Your task to perform on an android device: change the clock display to digital Image 0: 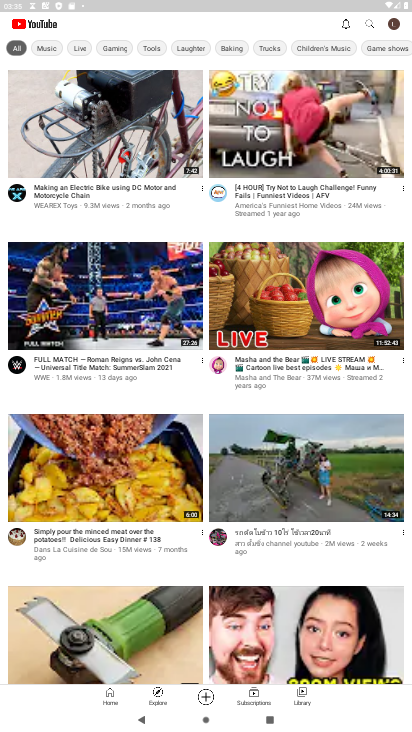
Step 0: press home button
Your task to perform on an android device: change the clock display to digital Image 1: 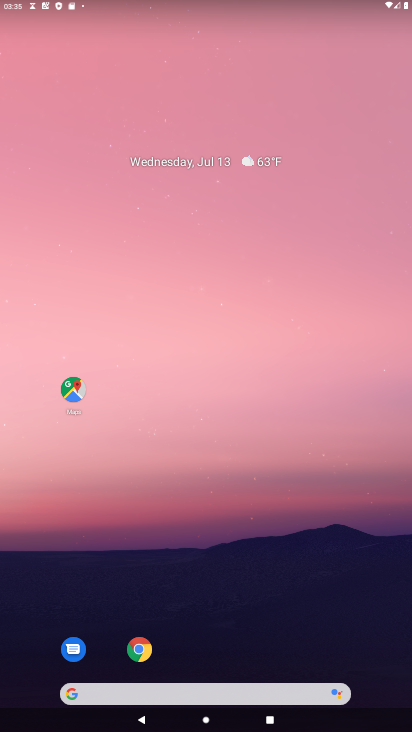
Step 1: drag from (237, 628) to (285, 121)
Your task to perform on an android device: change the clock display to digital Image 2: 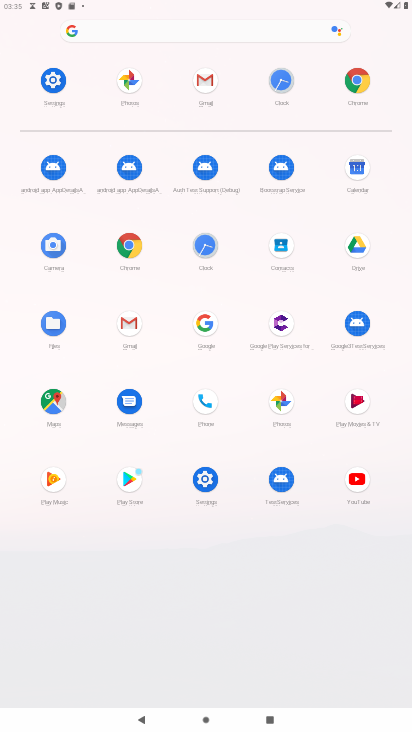
Step 2: click (276, 73)
Your task to perform on an android device: change the clock display to digital Image 3: 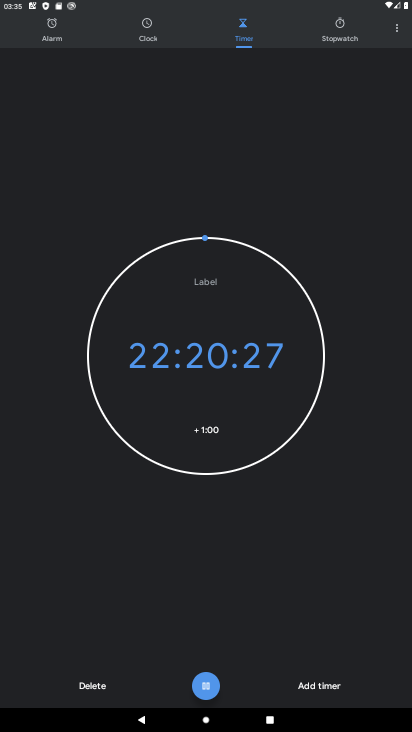
Step 3: click (397, 32)
Your task to perform on an android device: change the clock display to digital Image 4: 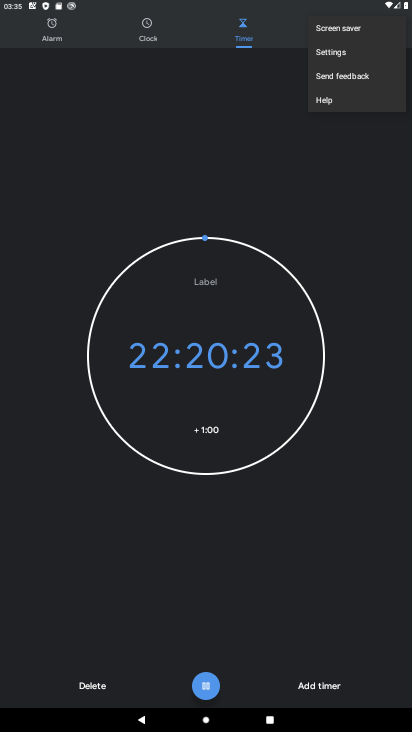
Step 4: click (332, 45)
Your task to perform on an android device: change the clock display to digital Image 5: 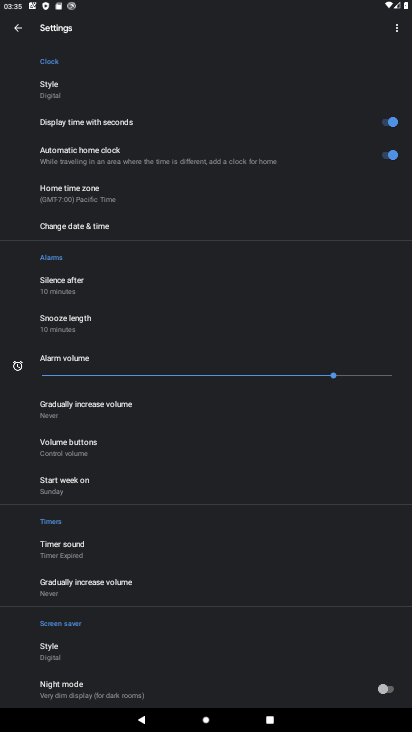
Step 5: click (58, 94)
Your task to perform on an android device: change the clock display to digital Image 6: 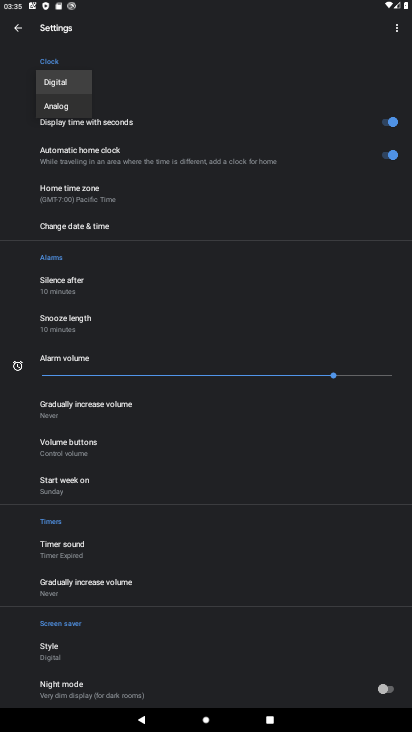
Step 6: click (80, 84)
Your task to perform on an android device: change the clock display to digital Image 7: 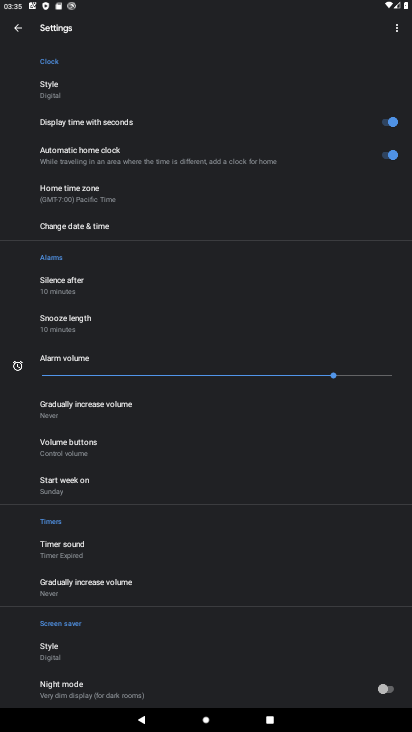
Step 7: task complete